Your task to perform on an android device: toggle priority inbox in the gmail app Image 0: 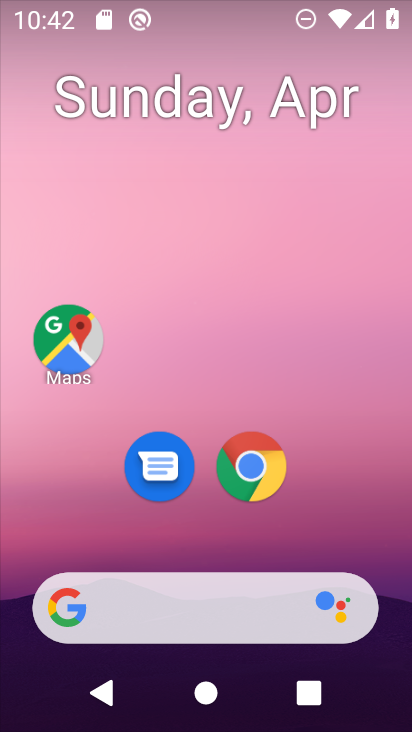
Step 0: drag from (372, 509) to (369, 102)
Your task to perform on an android device: toggle priority inbox in the gmail app Image 1: 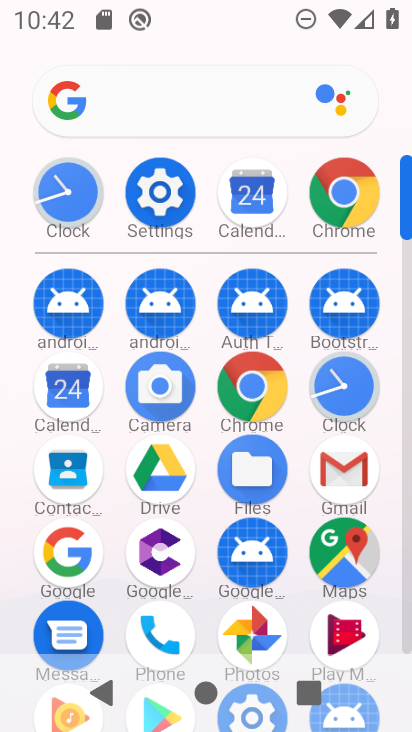
Step 1: click (345, 470)
Your task to perform on an android device: toggle priority inbox in the gmail app Image 2: 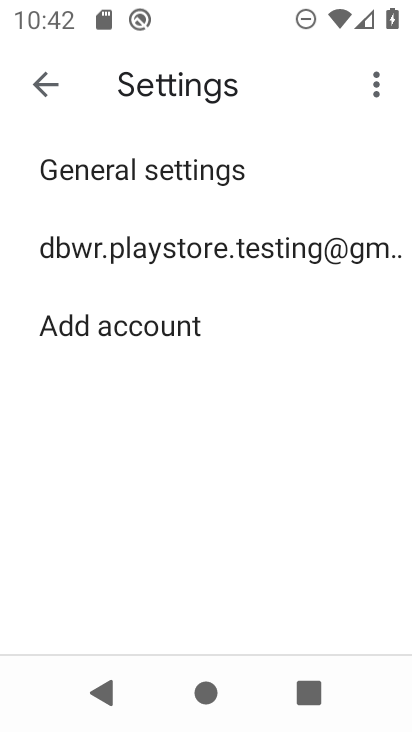
Step 2: click (54, 84)
Your task to perform on an android device: toggle priority inbox in the gmail app Image 3: 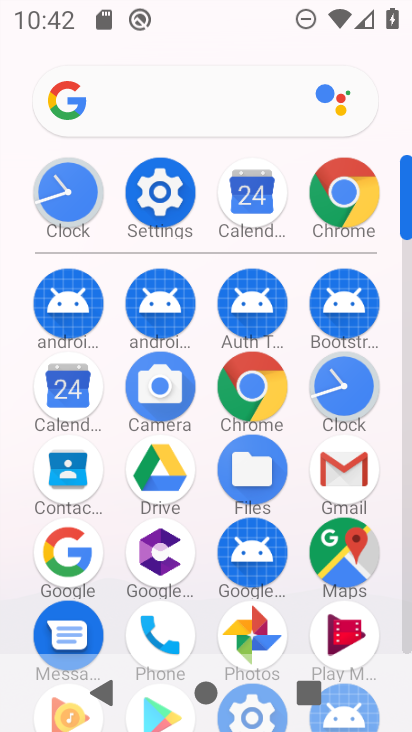
Step 3: click (341, 462)
Your task to perform on an android device: toggle priority inbox in the gmail app Image 4: 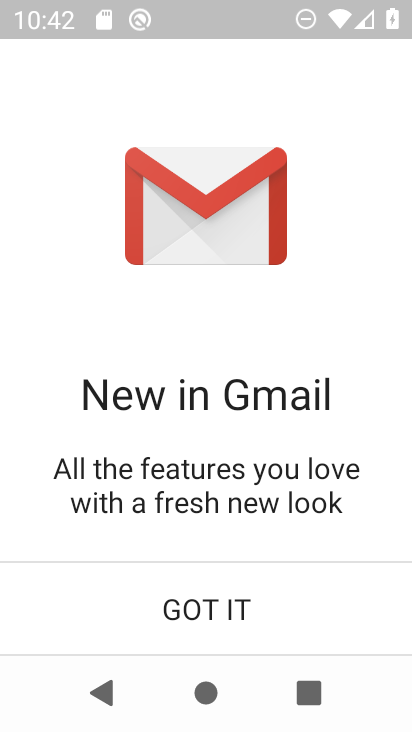
Step 4: click (231, 609)
Your task to perform on an android device: toggle priority inbox in the gmail app Image 5: 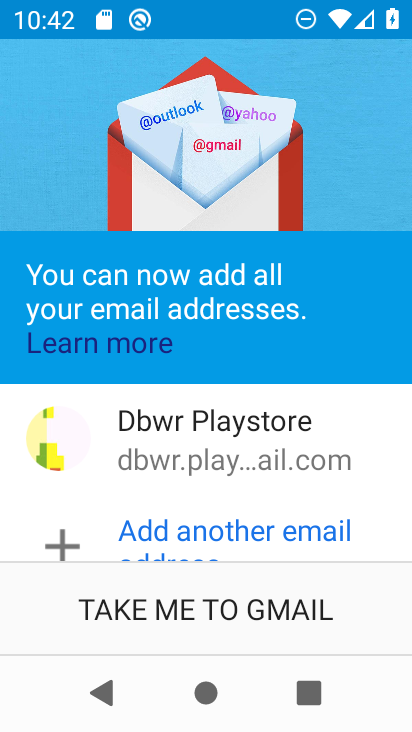
Step 5: click (231, 609)
Your task to perform on an android device: toggle priority inbox in the gmail app Image 6: 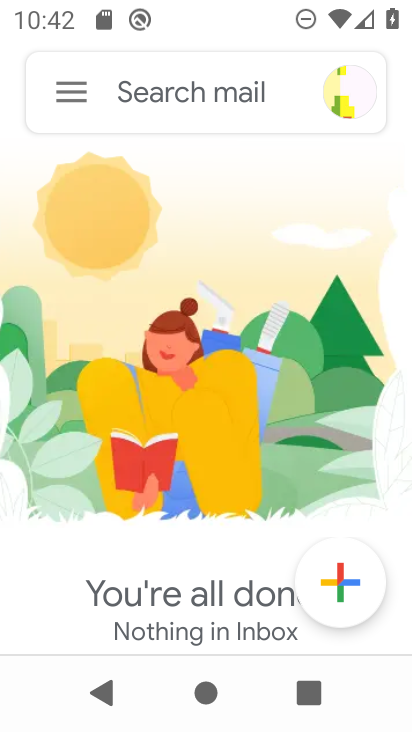
Step 6: click (81, 90)
Your task to perform on an android device: toggle priority inbox in the gmail app Image 7: 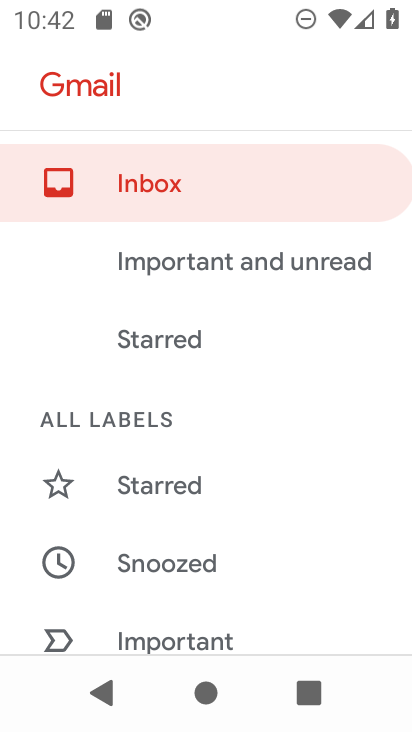
Step 7: drag from (309, 561) to (309, 434)
Your task to perform on an android device: toggle priority inbox in the gmail app Image 8: 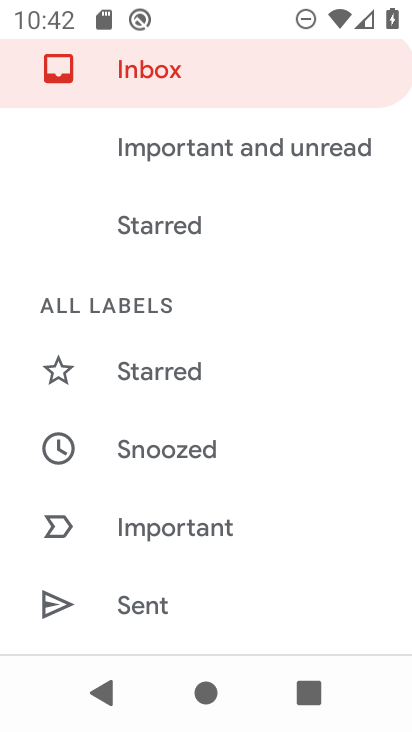
Step 8: drag from (323, 568) to (331, 464)
Your task to perform on an android device: toggle priority inbox in the gmail app Image 9: 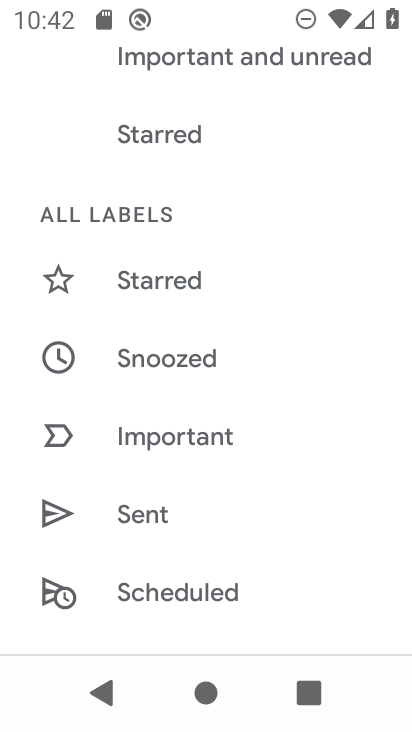
Step 9: drag from (327, 578) to (331, 430)
Your task to perform on an android device: toggle priority inbox in the gmail app Image 10: 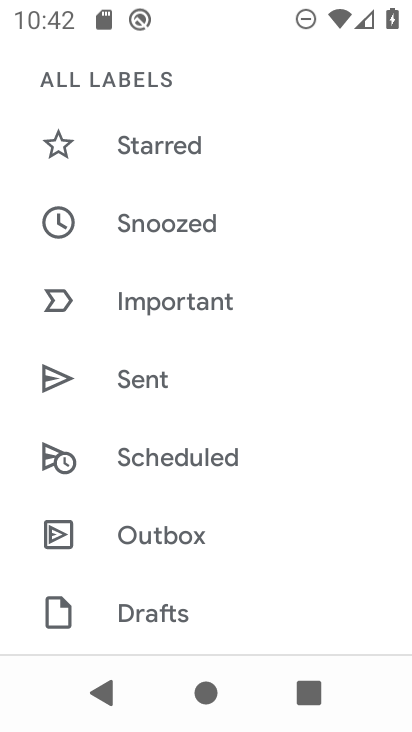
Step 10: drag from (336, 564) to (346, 419)
Your task to perform on an android device: toggle priority inbox in the gmail app Image 11: 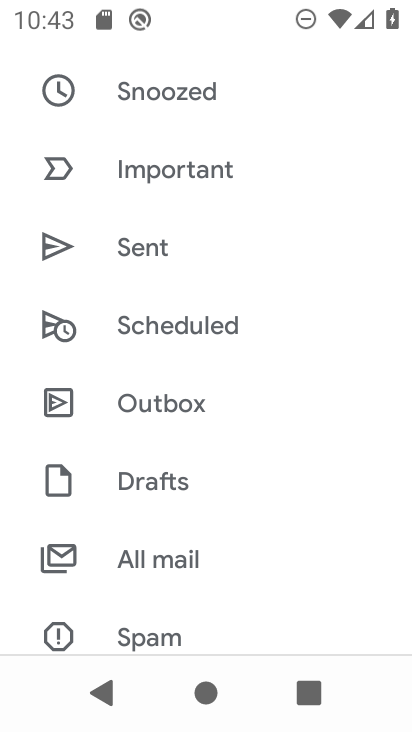
Step 11: drag from (335, 581) to (321, 393)
Your task to perform on an android device: toggle priority inbox in the gmail app Image 12: 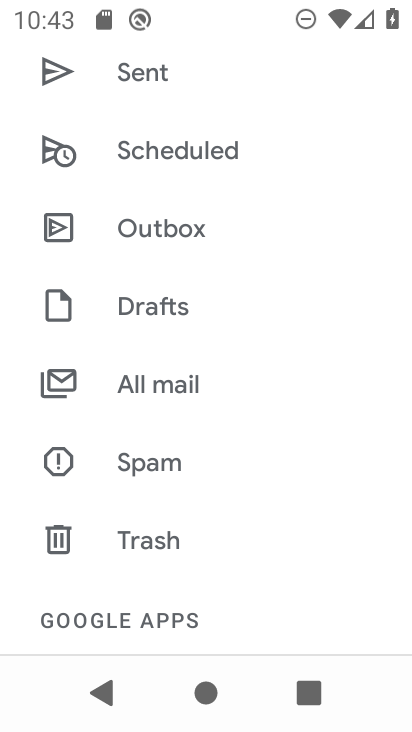
Step 12: drag from (321, 561) to (315, 430)
Your task to perform on an android device: toggle priority inbox in the gmail app Image 13: 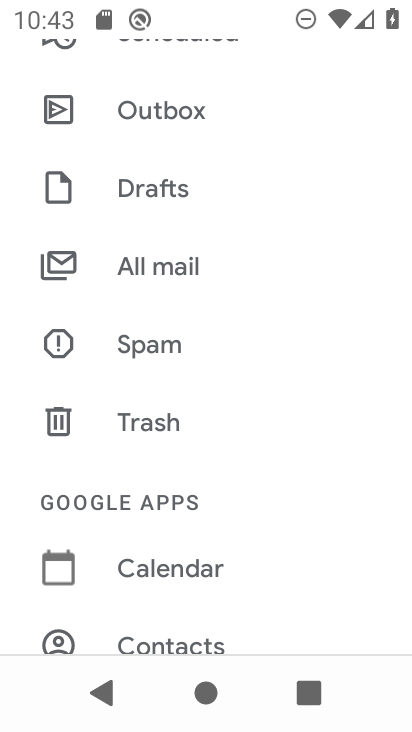
Step 13: drag from (287, 551) to (303, 262)
Your task to perform on an android device: toggle priority inbox in the gmail app Image 14: 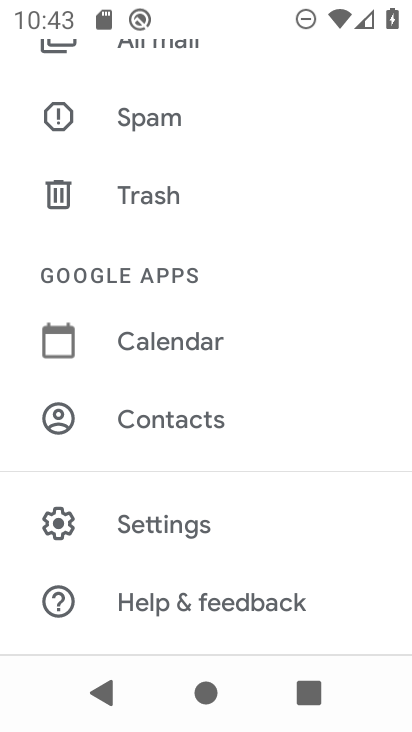
Step 14: click (201, 538)
Your task to perform on an android device: toggle priority inbox in the gmail app Image 15: 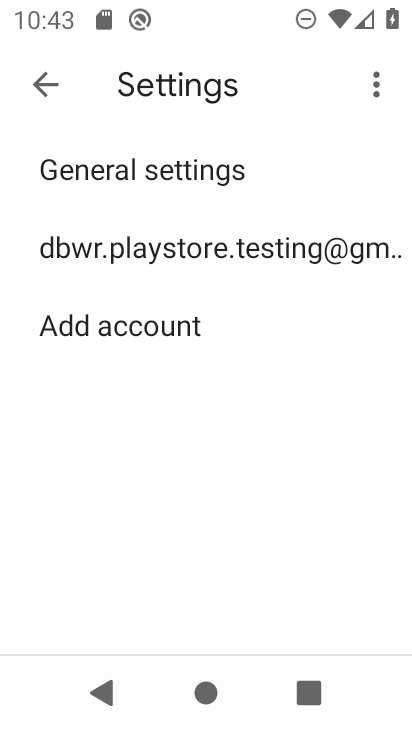
Step 15: click (258, 238)
Your task to perform on an android device: toggle priority inbox in the gmail app Image 16: 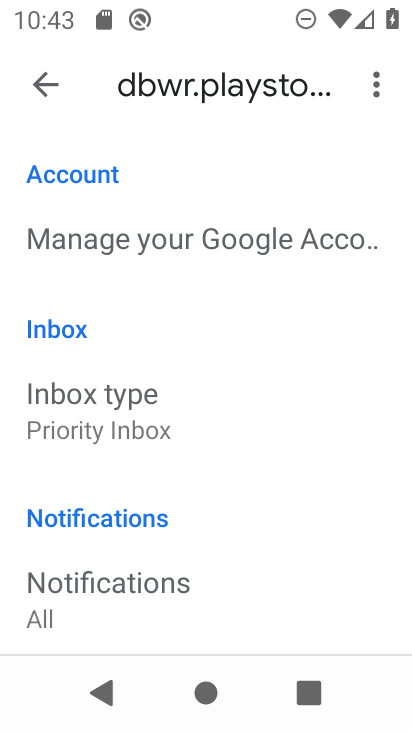
Step 16: task complete